Your task to perform on an android device: toggle data saver in the chrome app Image 0: 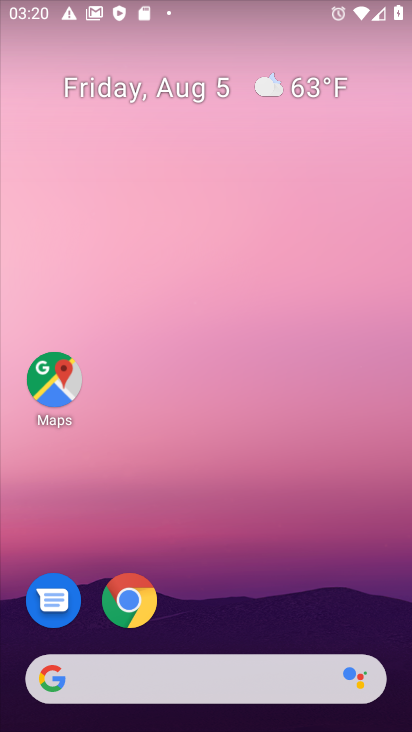
Step 0: click (133, 602)
Your task to perform on an android device: toggle data saver in the chrome app Image 1: 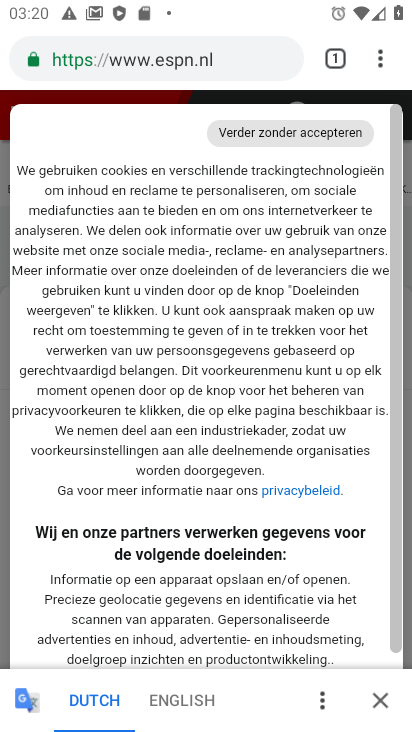
Step 1: click (382, 62)
Your task to perform on an android device: toggle data saver in the chrome app Image 2: 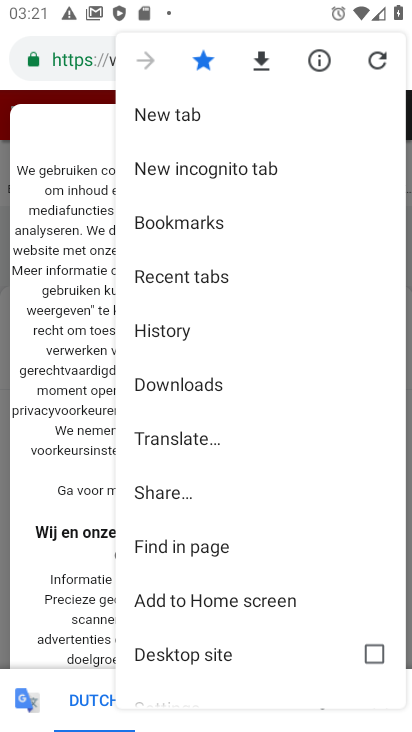
Step 2: drag from (217, 582) to (261, 452)
Your task to perform on an android device: toggle data saver in the chrome app Image 3: 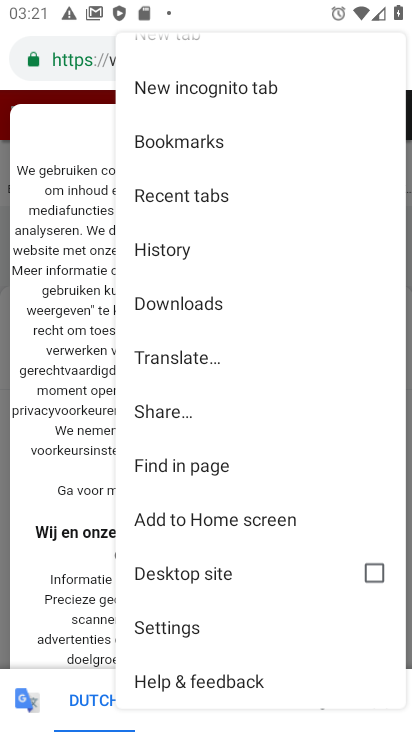
Step 3: click (190, 630)
Your task to perform on an android device: toggle data saver in the chrome app Image 4: 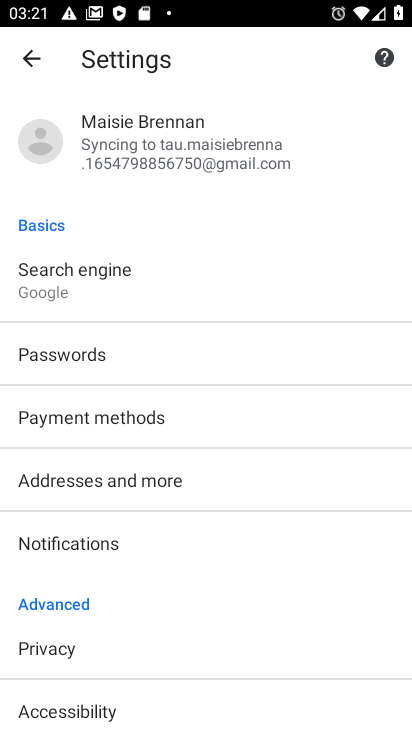
Step 4: drag from (173, 586) to (274, 410)
Your task to perform on an android device: toggle data saver in the chrome app Image 5: 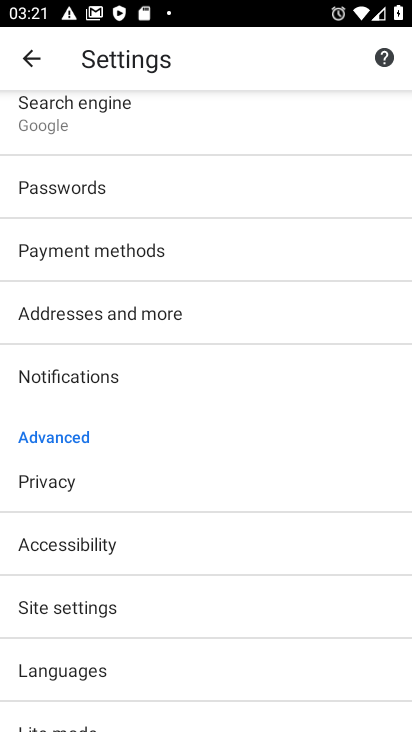
Step 5: drag from (199, 553) to (286, 451)
Your task to perform on an android device: toggle data saver in the chrome app Image 6: 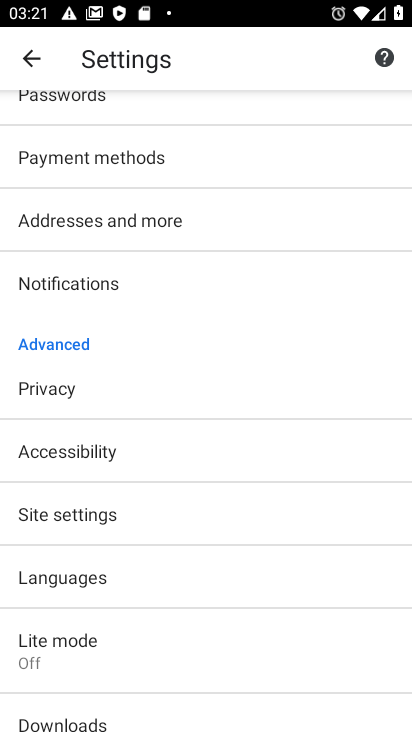
Step 6: drag from (201, 553) to (323, 423)
Your task to perform on an android device: toggle data saver in the chrome app Image 7: 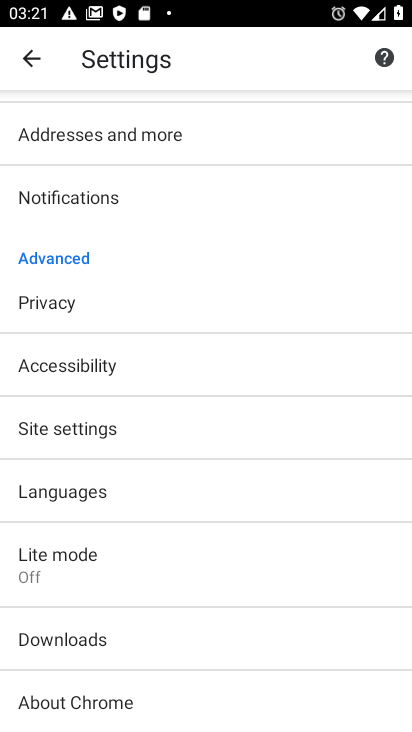
Step 7: click (87, 557)
Your task to perform on an android device: toggle data saver in the chrome app Image 8: 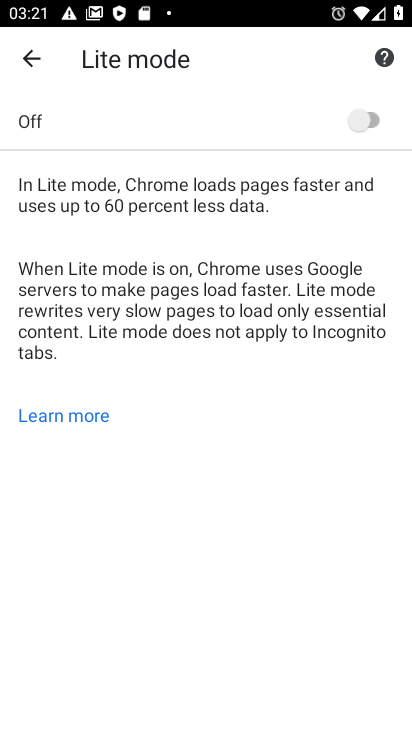
Step 8: click (371, 122)
Your task to perform on an android device: toggle data saver in the chrome app Image 9: 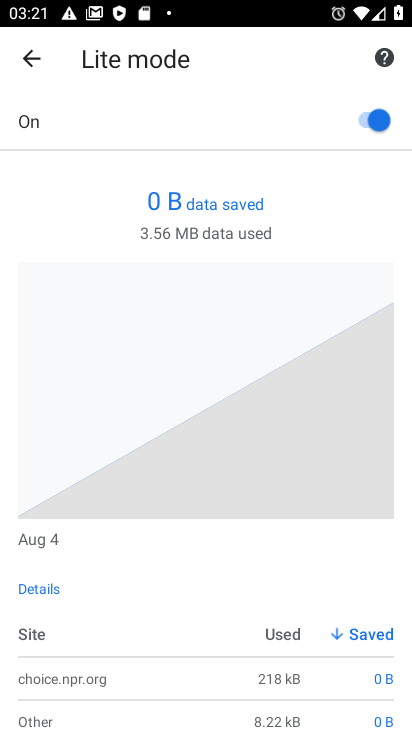
Step 9: task complete